Your task to perform on an android device: Go to internet settings Image 0: 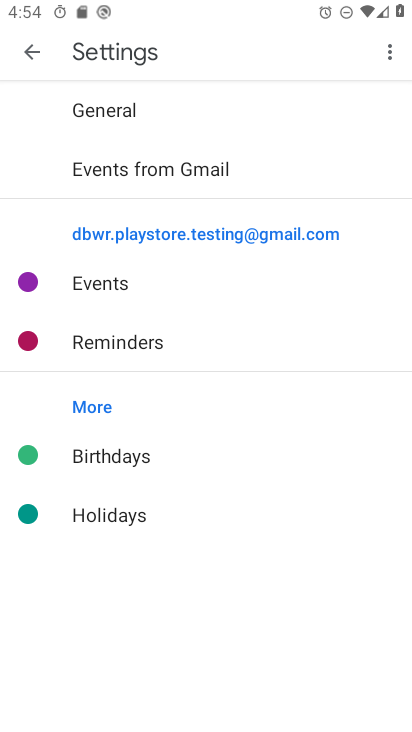
Step 0: press home button
Your task to perform on an android device: Go to internet settings Image 1: 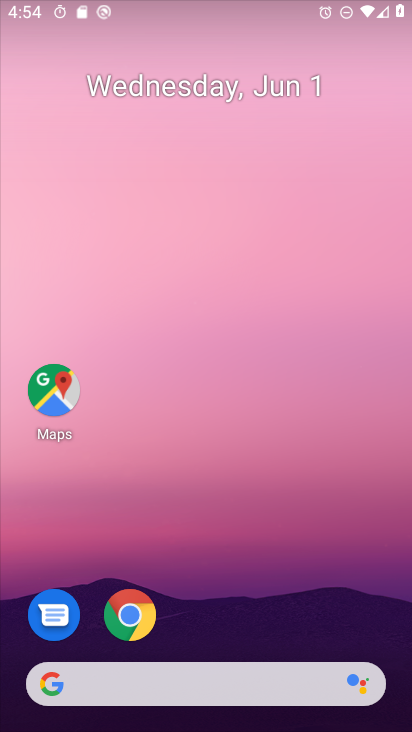
Step 1: drag from (235, 659) to (240, 39)
Your task to perform on an android device: Go to internet settings Image 2: 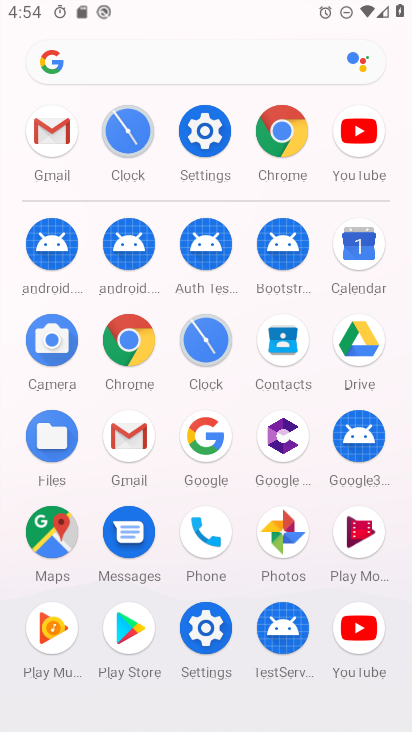
Step 2: click (204, 128)
Your task to perform on an android device: Go to internet settings Image 3: 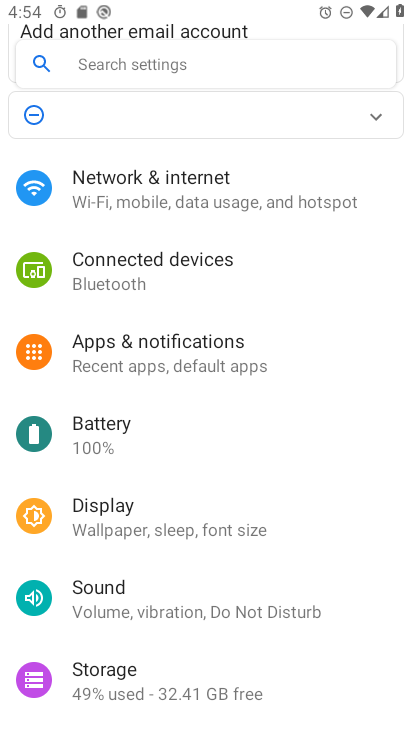
Step 3: click (122, 185)
Your task to perform on an android device: Go to internet settings Image 4: 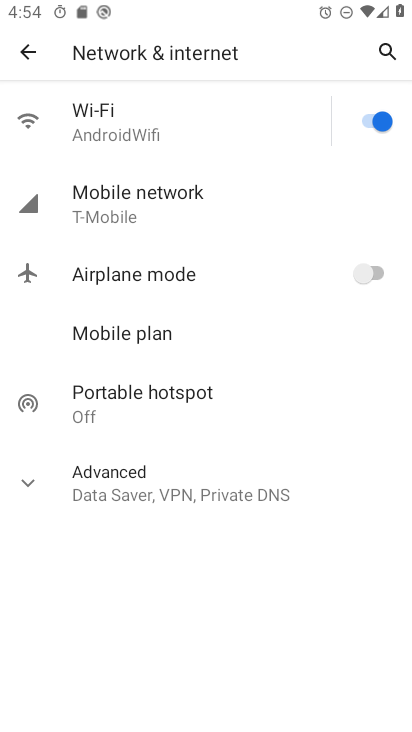
Step 4: task complete